Your task to perform on an android device: Open location settings Image 0: 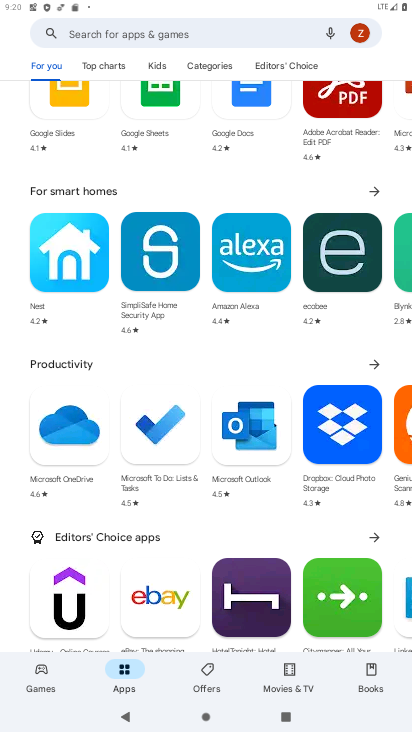
Step 0: press home button
Your task to perform on an android device: Open location settings Image 1: 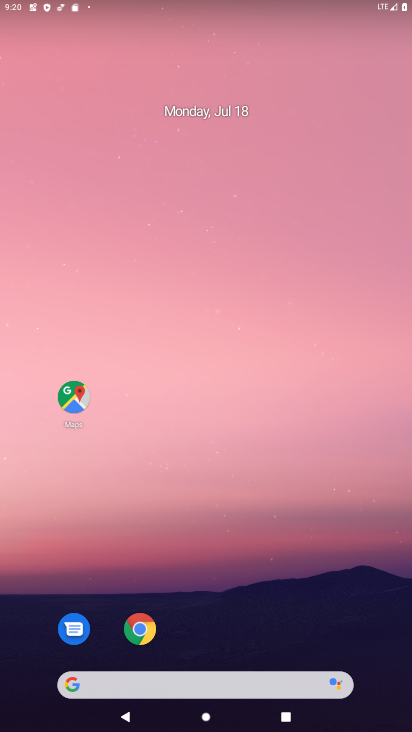
Step 1: drag from (231, 658) to (302, 129)
Your task to perform on an android device: Open location settings Image 2: 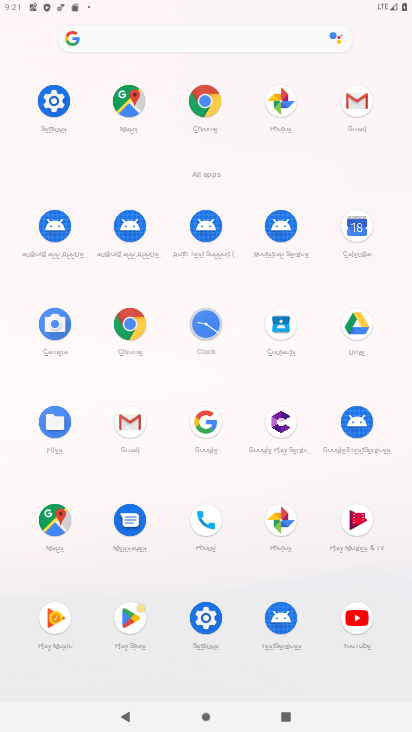
Step 2: click (47, 96)
Your task to perform on an android device: Open location settings Image 3: 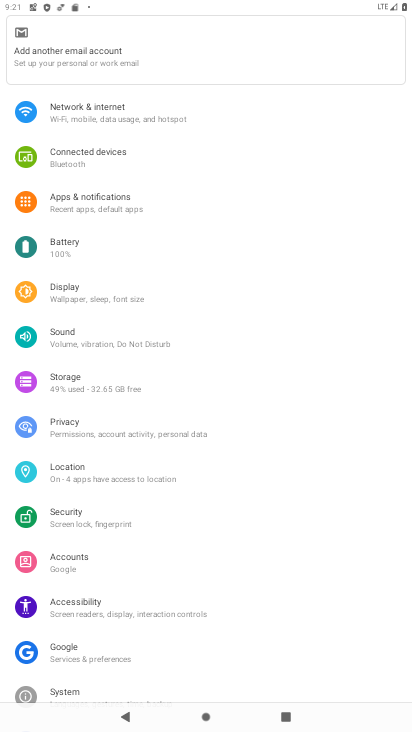
Step 3: click (114, 481)
Your task to perform on an android device: Open location settings Image 4: 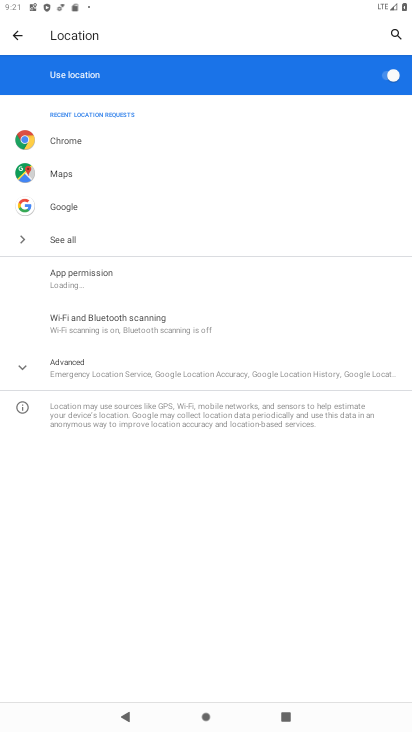
Step 4: task complete